Your task to perform on an android device: open a new tab in the chrome app Image 0: 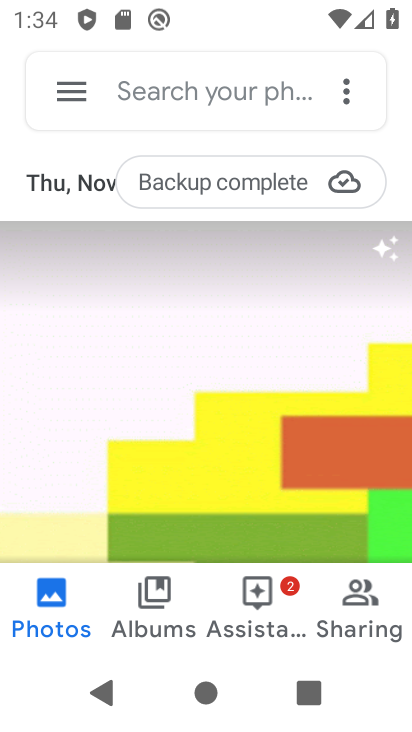
Step 0: press home button
Your task to perform on an android device: open a new tab in the chrome app Image 1: 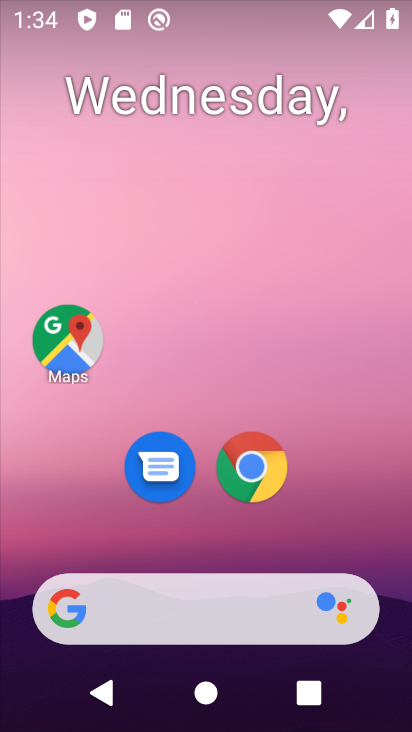
Step 1: click (270, 468)
Your task to perform on an android device: open a new tab in the chrome app Image 2: 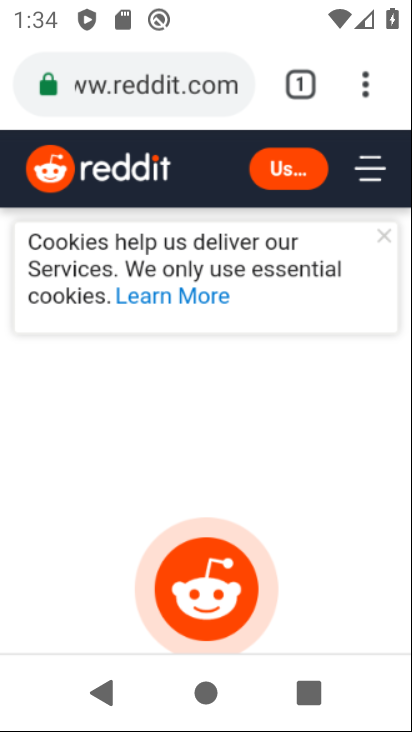
Step 2: click (373, 64)
Your task to perform on an android device: open a new tab in the chrome app Image 3: 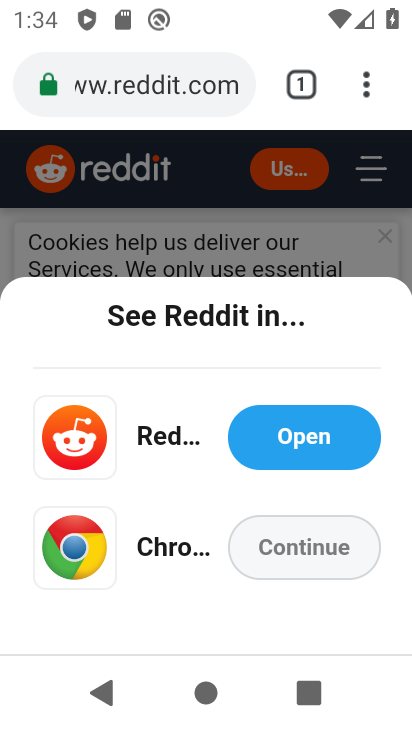
Step 3: click (371, 80)
Your task to perform on an android device: open a new tab in the chrome app Image 4: 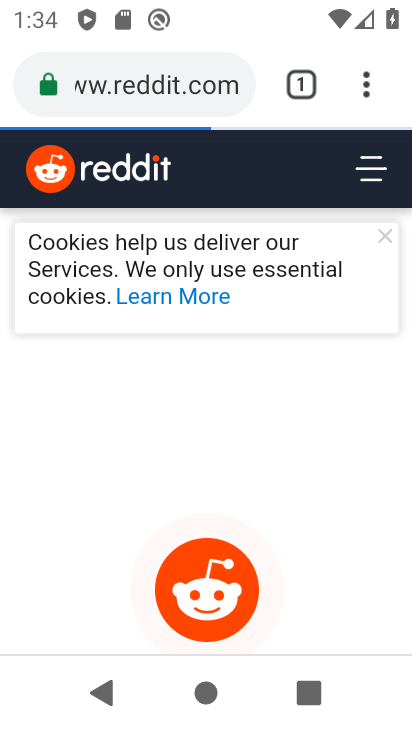
Step 4: click (362, 89)
Your task to perform on an android device: open a new tab in the chrome app Image 5: 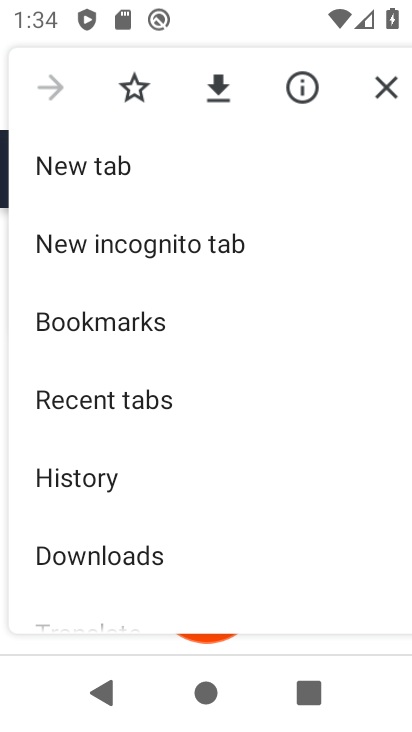
Step 5: click (117, 164)
Your task to perform on an android device: open a new tab in the chrome app Image 6: 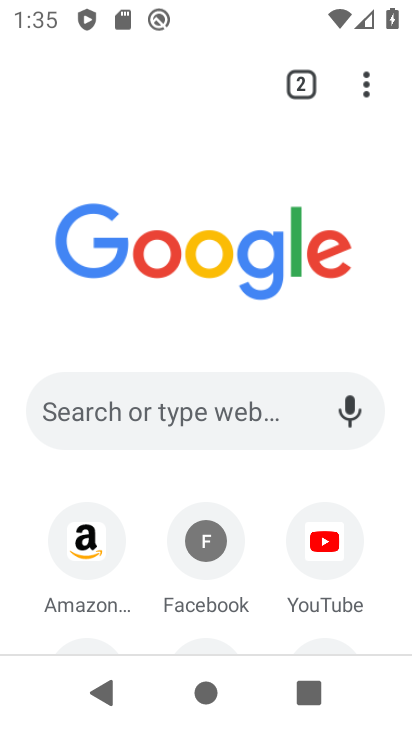
Step 6: task complete